Your task to perform on an android device: delete a single message in the gmail app Image 0: 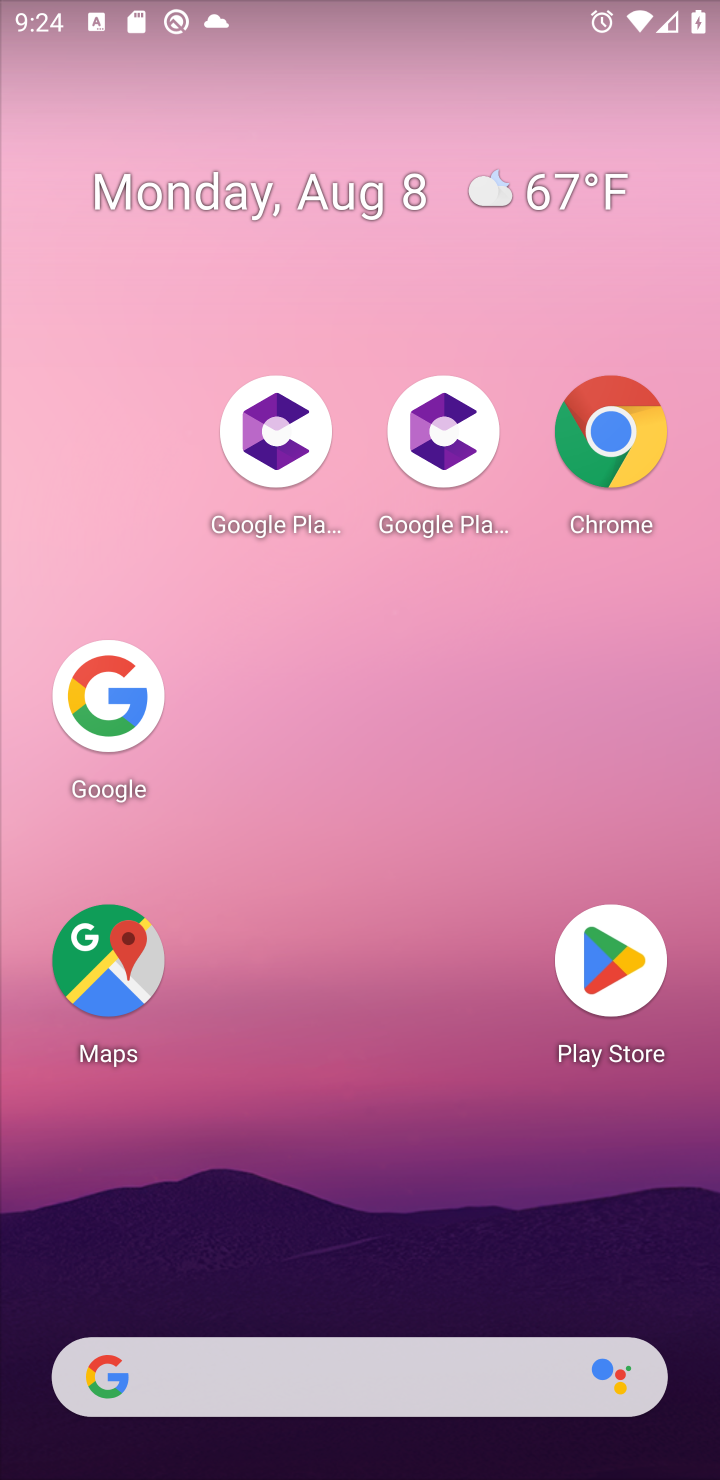
Step 0: drag from (496, 1196) to (356, 286)
Your task to perform on an android device: delete a single message in the gmail app Image 1: 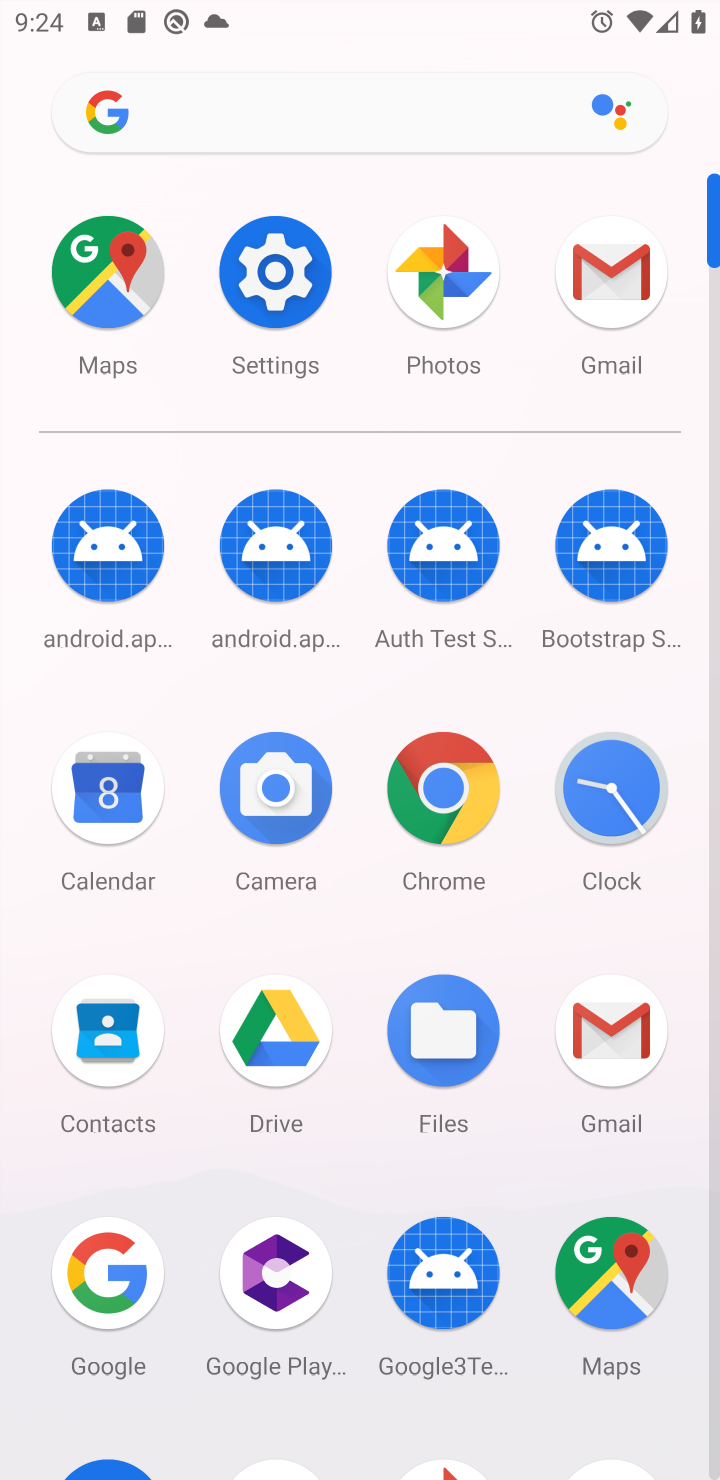
Step 1: click (616, 384)
Your task to perform on an android device: delete a single message in the gmail app Image 2: 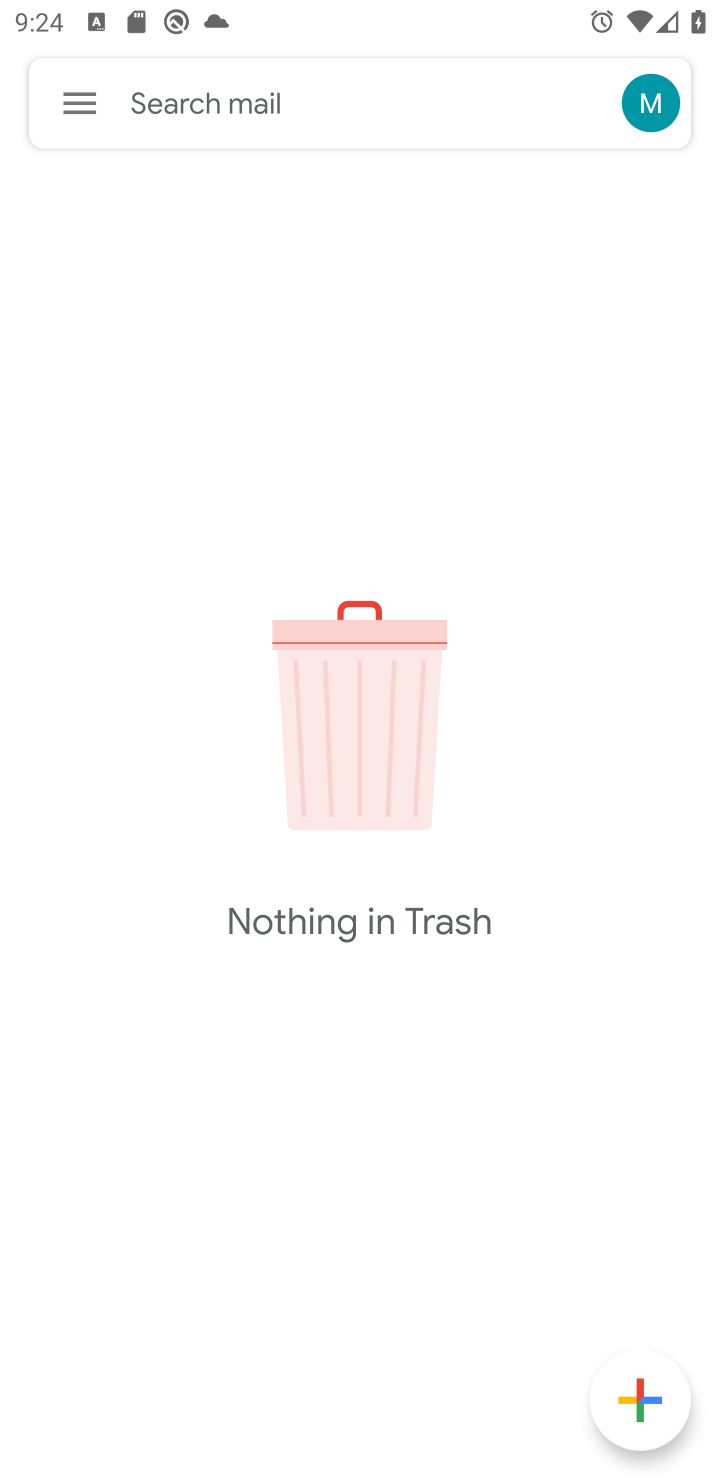
Step 2: task complete